Your task to perform on an android device: Go to Google Image 0: 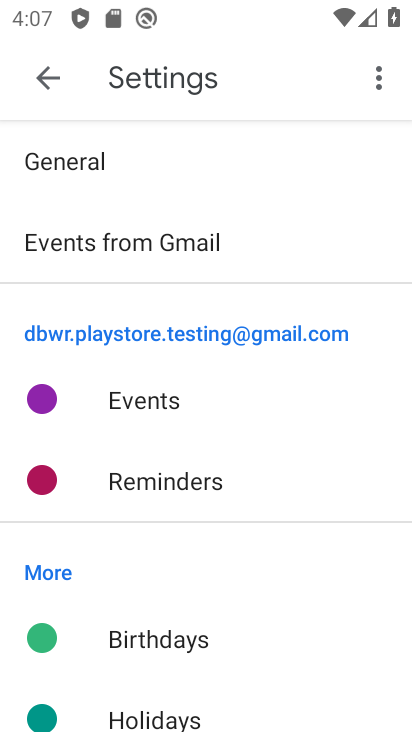
Step 0: press back button
Your task to perform on an android device: Go to Google Image 1: 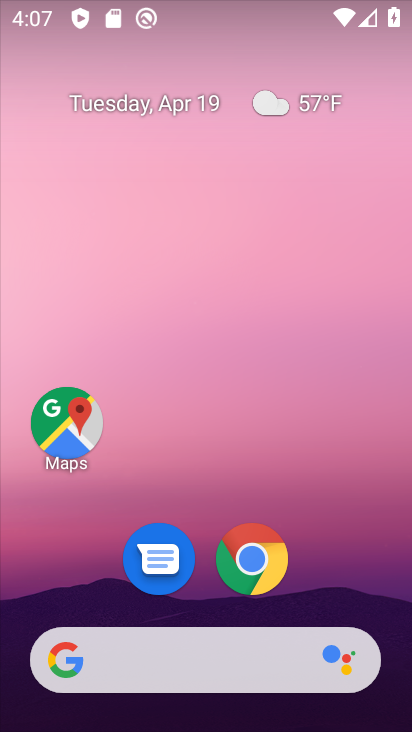
Step 1: drag from (197, 621) to (280, 149)
Your task to perform on an android device: Go to Google Image 2: 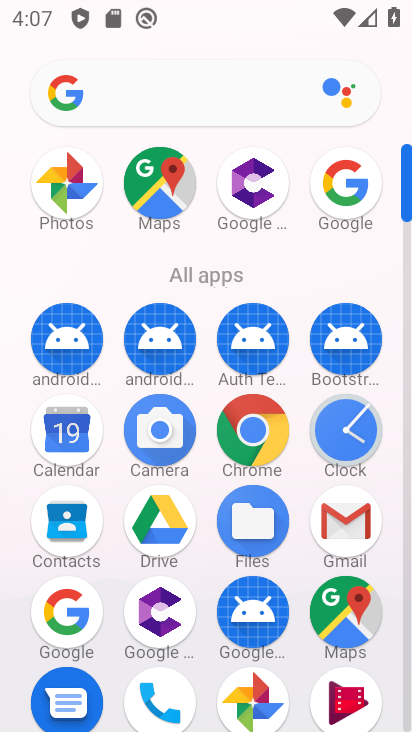
Step 2: click (64, 624)
Your task to perform on an android device: Go to Google Image 3: 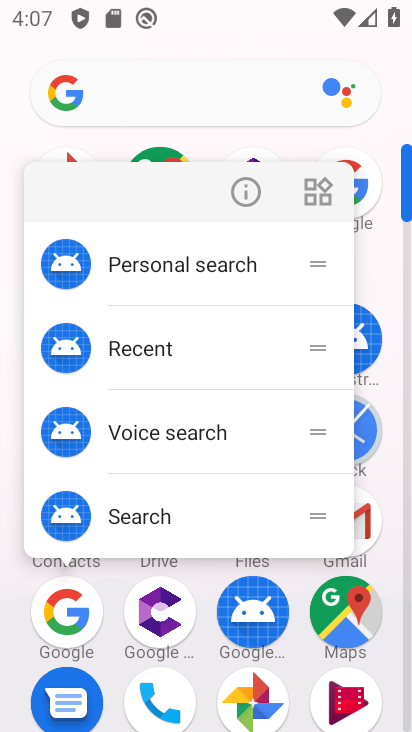
Step 3: click (62, 617)
Your task to perform on an android device: Go to Google Image 4: 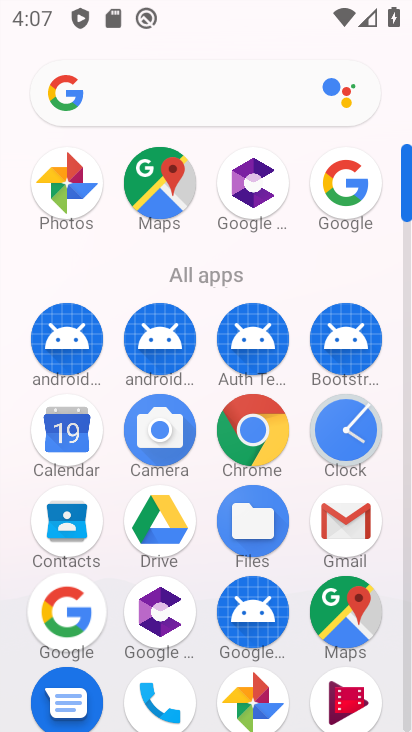
Step 4: click (79, 626)
Your task to perform on an android device: Go to Google Image 5: 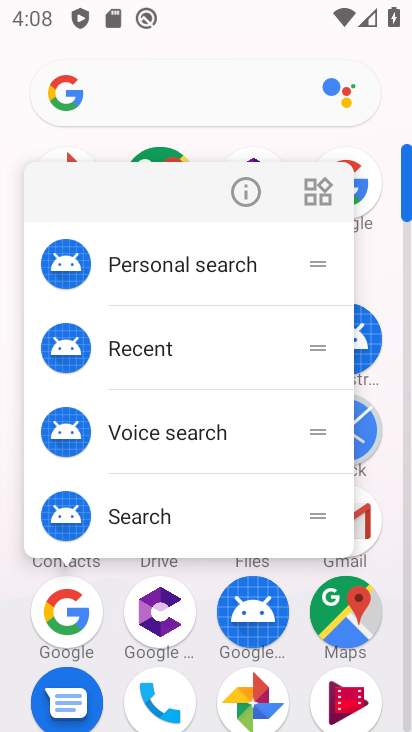
Step 5: click (67, 621)
Your task to perform on an android device: Go to Google Image 6: 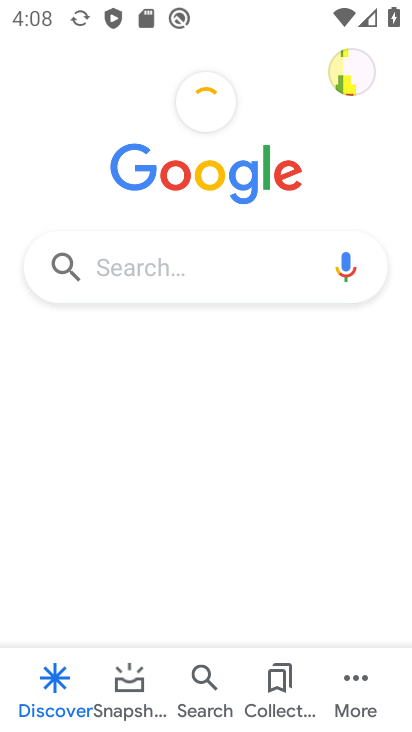
Step 6: task complete